Your task to perform on an android device: change text size in settings app Image 0: 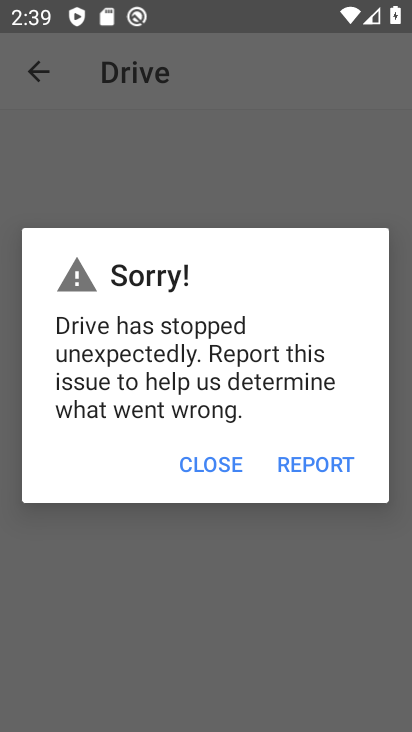
Step 0: press home button
Your task to perform on an android device: change text size in settings app Image 1: 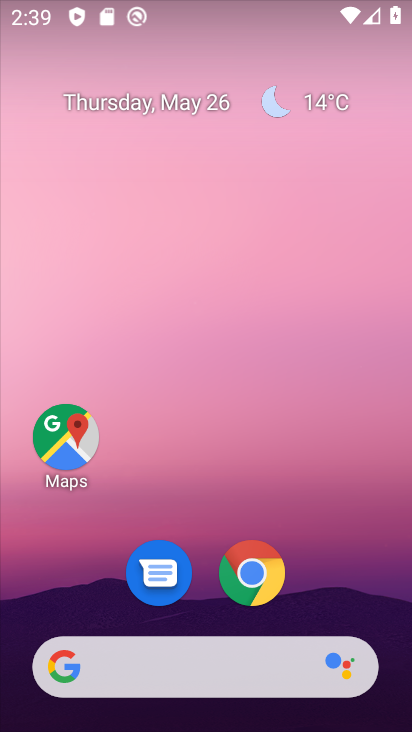
Step 1: drag from (355, 556) to (247, 15)
Your task to perform on an android device: change text size in settings app Image 2: 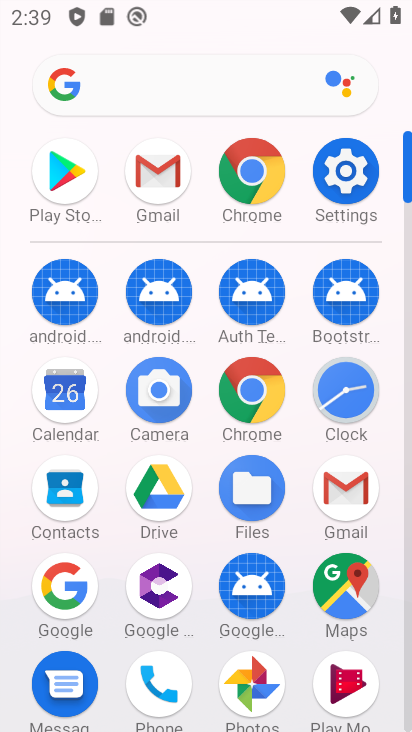
Step 2: drag from (17, 591) to (21, 337)
Your task to perform on an android device: change text size in settings app Image 3: 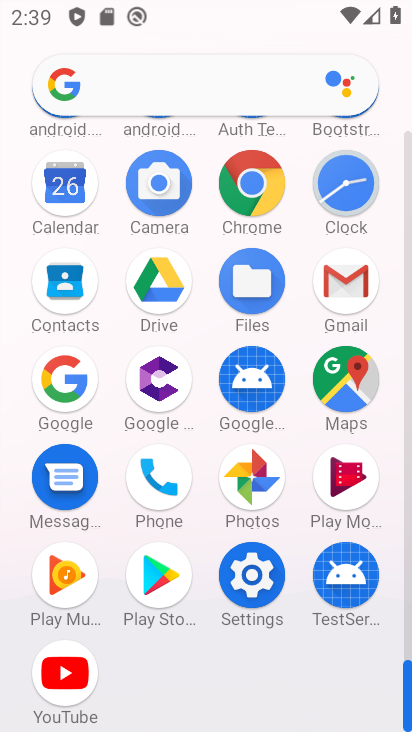
Step 3: click (252, 573)
Your task to perform on an android device: change text size in settings app Image 4: 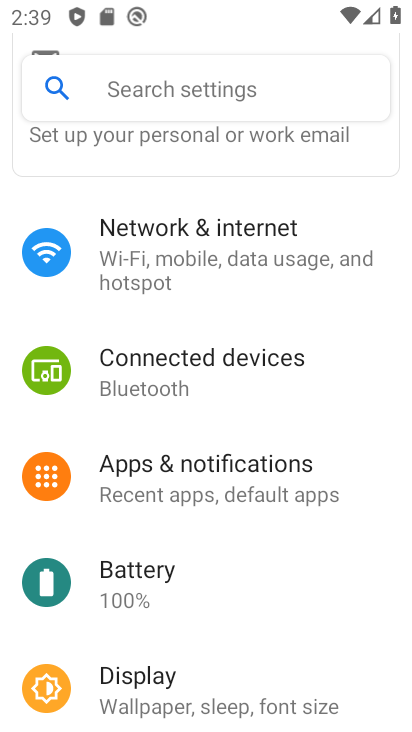
Step 4: drag from (312, 615) to (289, 476)
Your task to perform on an android device: change text size in settings app Image 5: 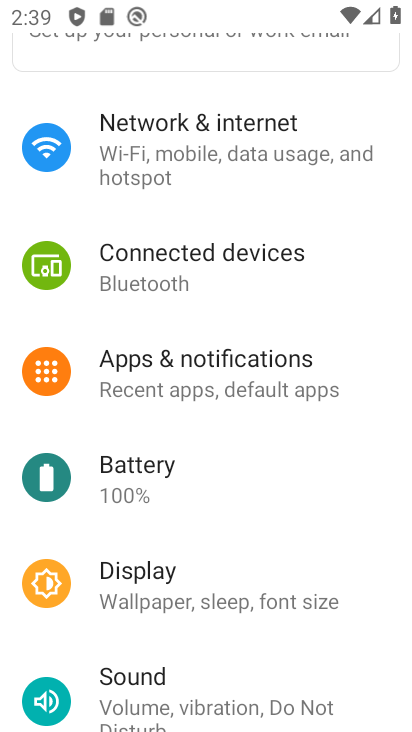
Step 5: click (160, 596)
Your task to perform on an android device: change text size in settings app Image 6: 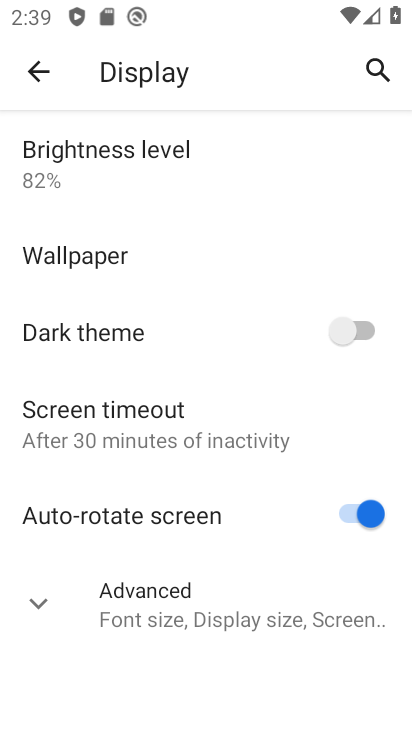
Step 6: click (149, 594)
Your task to perform on an android device: change text size in settings app Image 7: 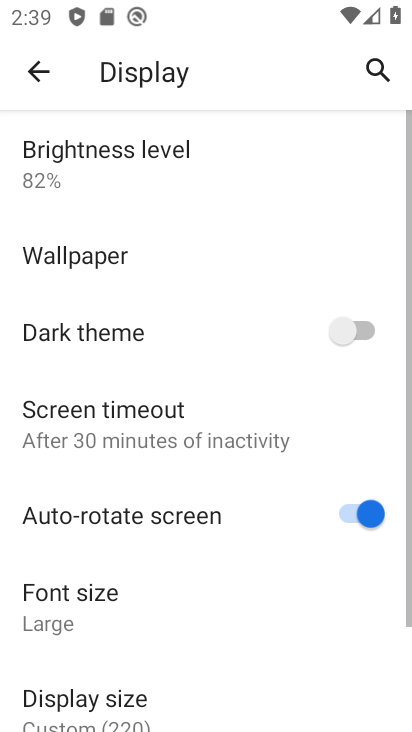
Step 7: drag from (195, 637) to (240, 283)
Your task to perform on an android device: change text size in settings app Image 8: 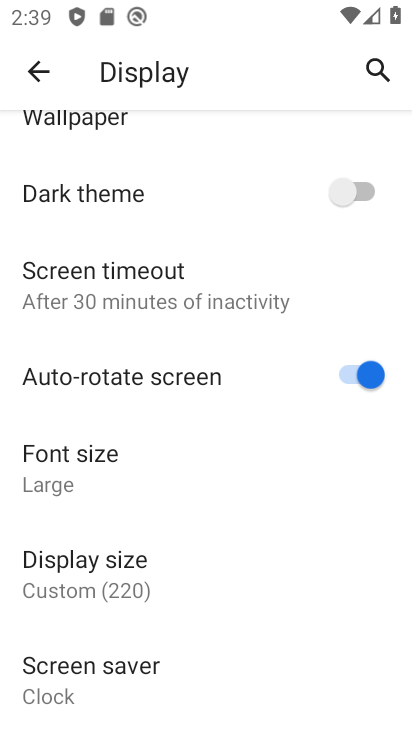
Step 8: click (122, 452)
Your task to perform on an android device: change text size in settings app Image 9: 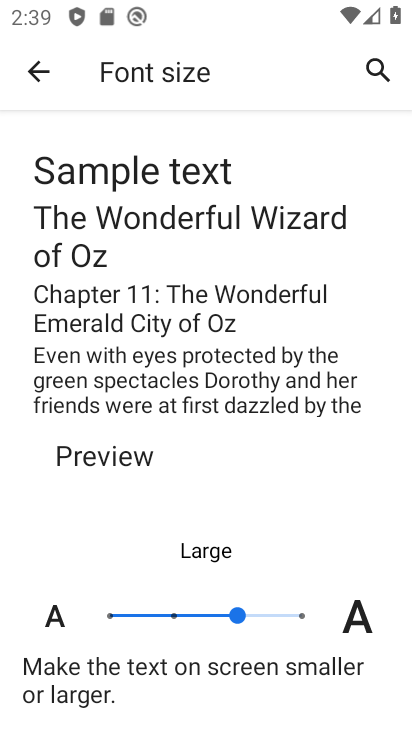
Step 9: click (300, 614)
Your task to perform on an android device: change text size in settings app Image 10: 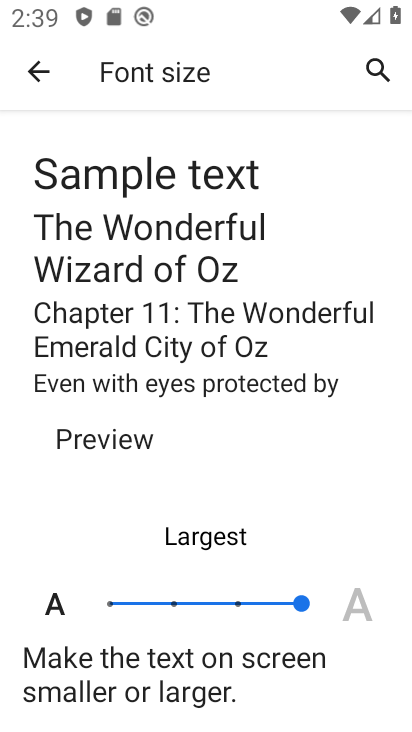
Step 10: task complete